Your task to perform on an android device: turn on the 12-hour format for clock Image 0: 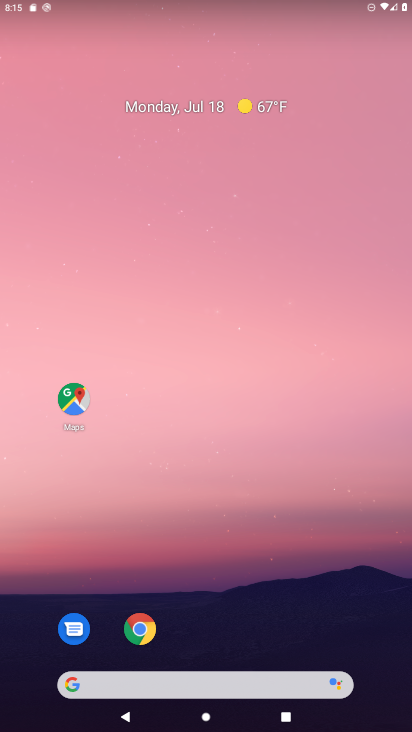
Step 0: drag from (203, 634) to (332, 166)
Your task to perform on an android device: turn on the 12-hour format for clock Image 1: 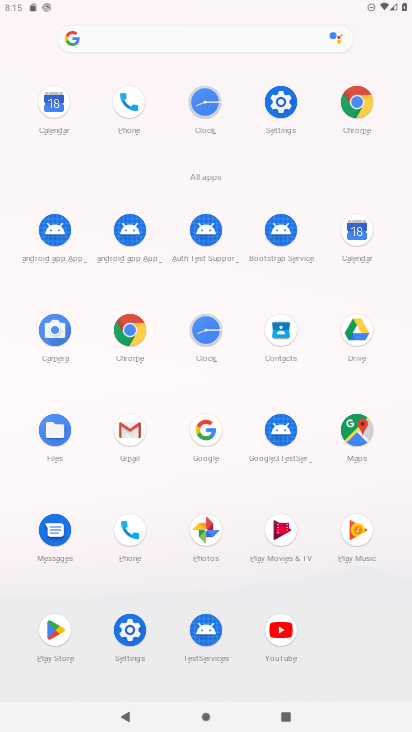
Step 1: click (211, 332)
Your task to perform on an android device: turn on the 12-hour format for clock Image 2: 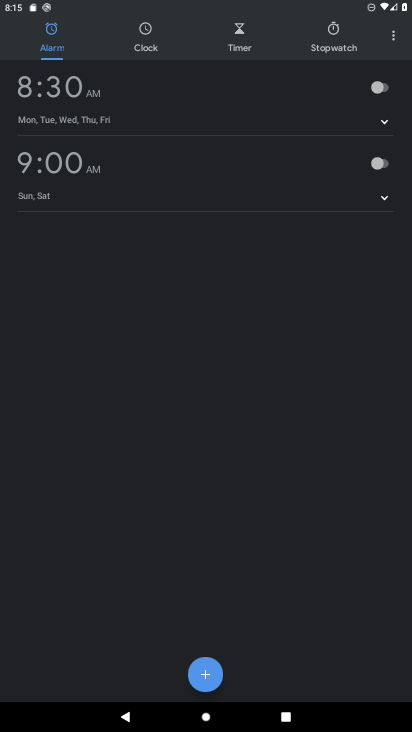
Step 2: click (393, 41)
Your task to perform on an android device: turn on the 12-hour format for clock Image 3: 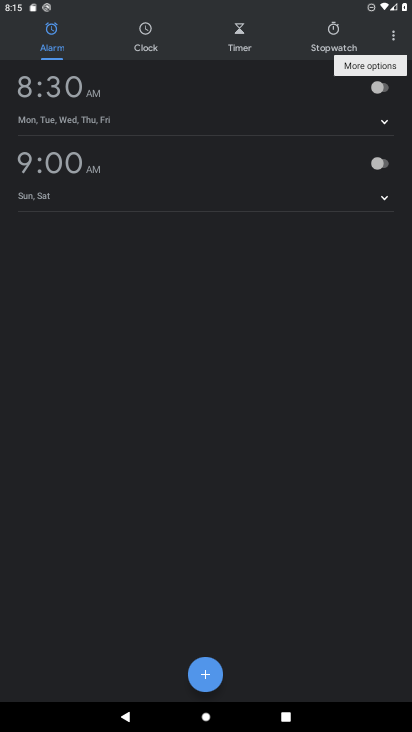
Step 3: click (389, 42)
Your task to perform on an android device: turn on the 12-hour format for clock Image 4: 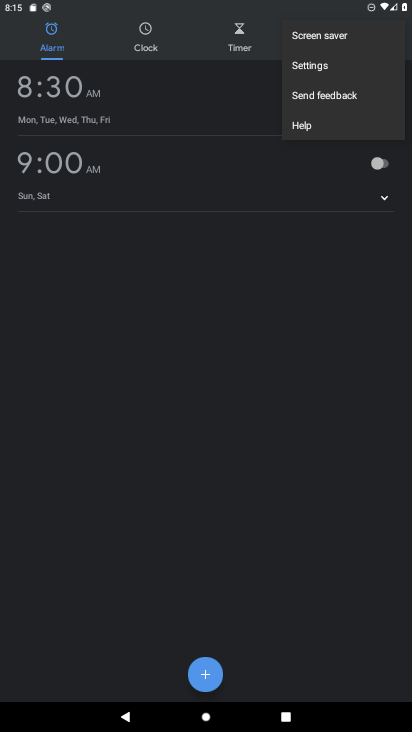
Step 4: click (314, 68)
Your task to perform on an android device: turn on the 12-hour format for clock Image 5: 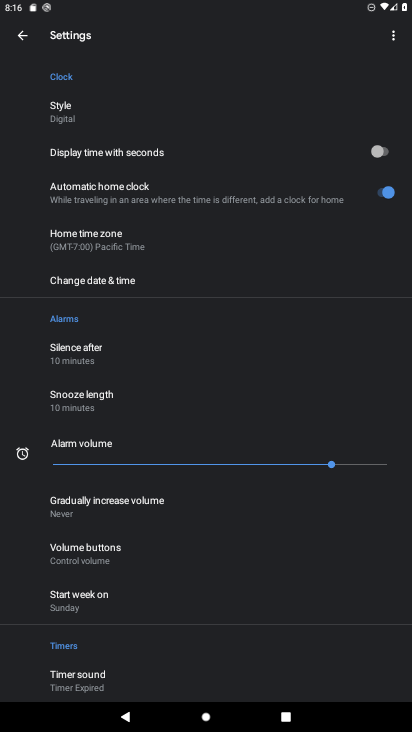
Step 5: click (73, 274)
Your task to perform on an android device: turn on the 12-hour format for clock Image 6: 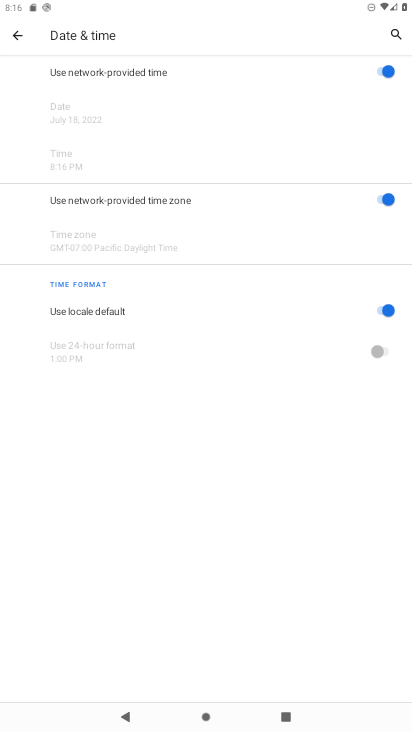
Step 6: task complete